Your task to perform on an android device: turn on the 12-hour format for clock Image 0: 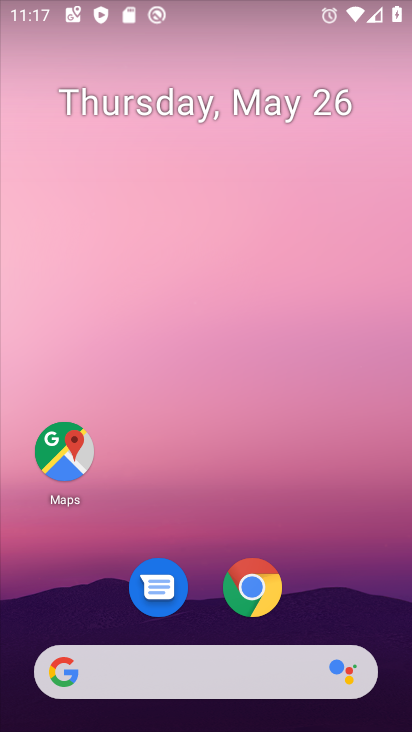
Step 0: drag from (256, 698) to (356, 27)
Your task to perform on an android device: turn on the 12-hour format for clock Image 1: 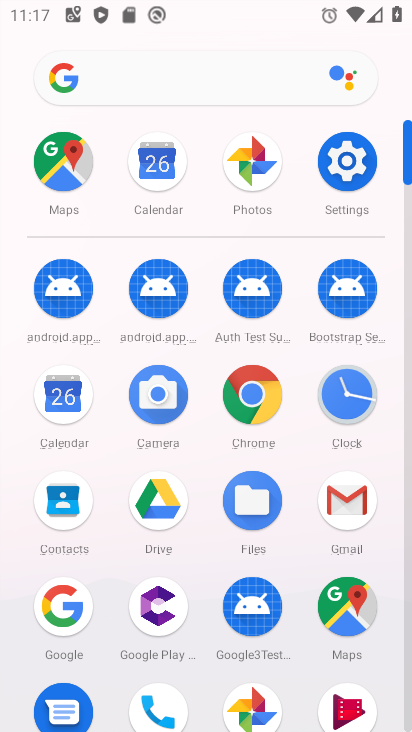
Step 1: click (348, 375)
Your task to perform on an android device: turn on the 12-hour format for clock Image 2: 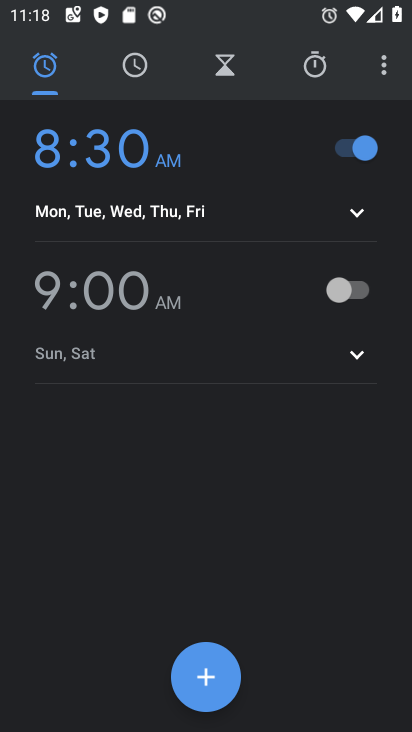
Step 2: click (379, 74)
Your task to perform on an android device: turn on the 12-hour format for clock Image 3: 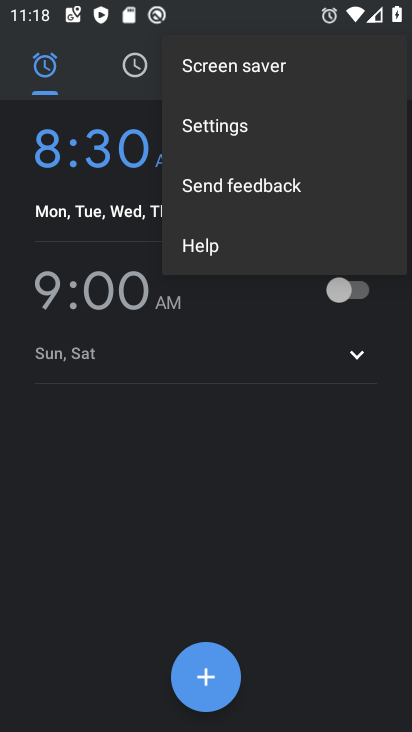
Step 3: click (269, 153)
Your task to perform on an android device: turn on the 12-hour format for clock Image 4: 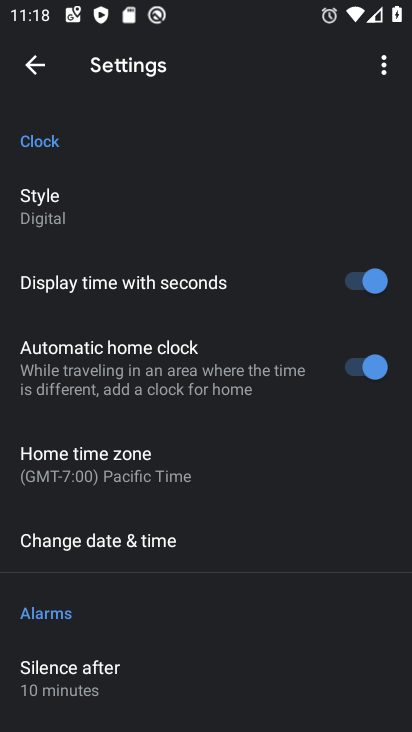
Step 4: click (95, 543)
Your task to perform on an android device: turn on the 12-hour format for clock Image 5: 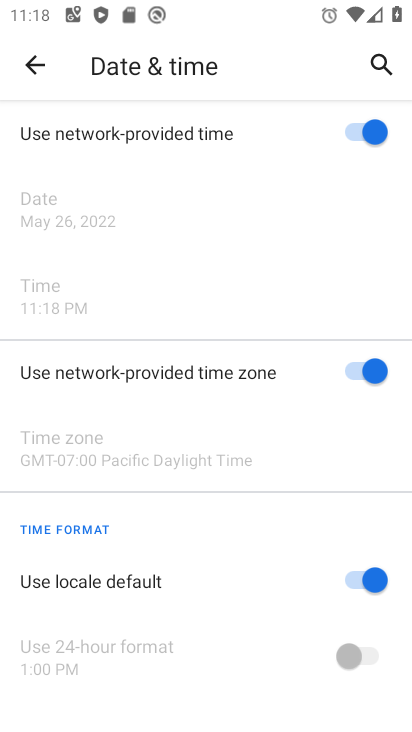
Step 5: click (353, 658)
Your task to perform on an android device: turn on the 12-hour format for clock Image 6: 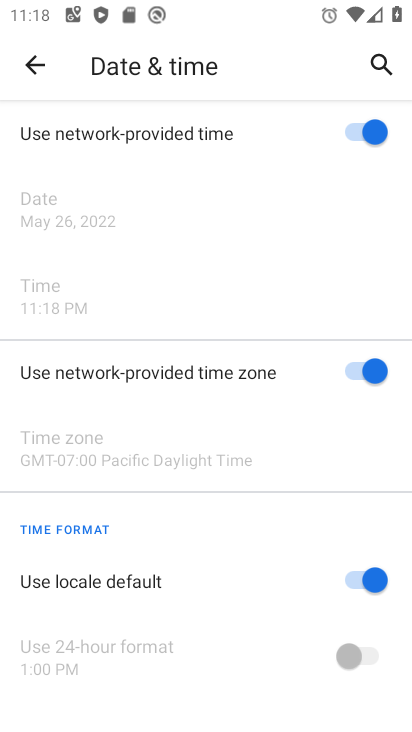
Step 6: click (367, 583)
Your task to perform on an android device: turn on the 12-hour format for clock Image 7: 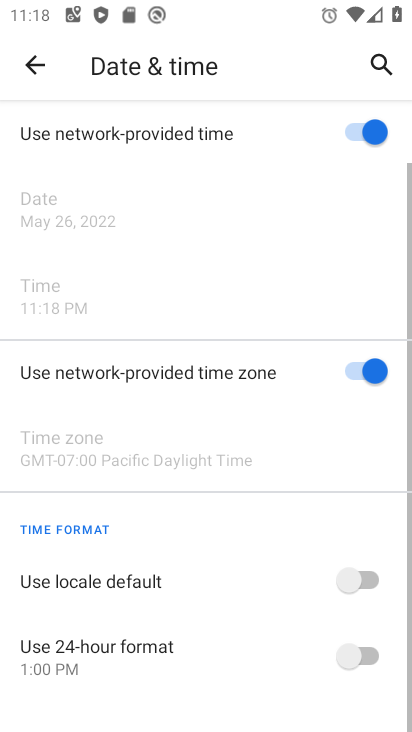
Step 7: click (357, 652)
Your task to perform on an android device: turn on the 12-hour format for clock Image 8: 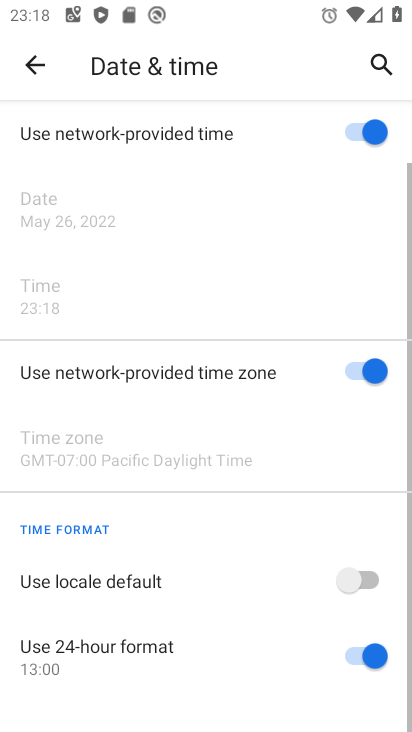
Step 8: click (357, 652)
Your task to perform on an android device: turn on the 12-hour format for clock Image 9: 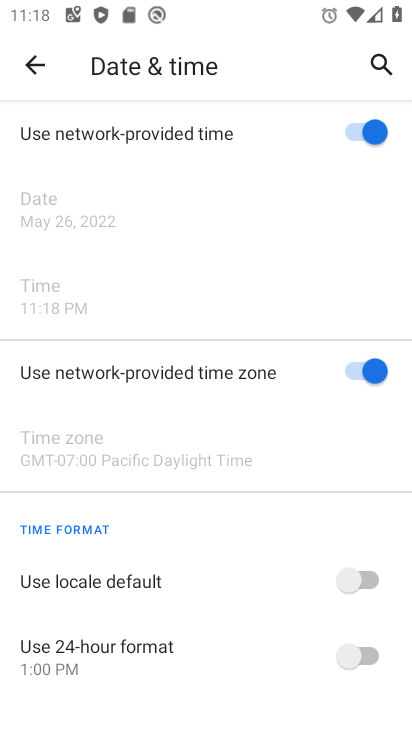
Step 9: task complete